Your task to perform on an android device: Go to settings Image 0: 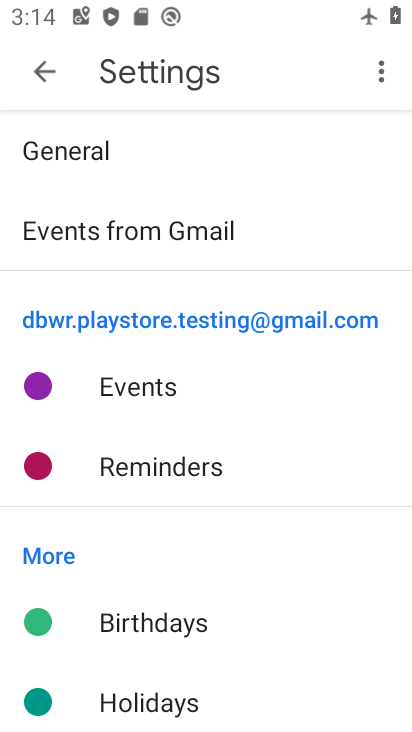
Step 0: press home button
Your task to perform on an android device: Go to settings Image 1: 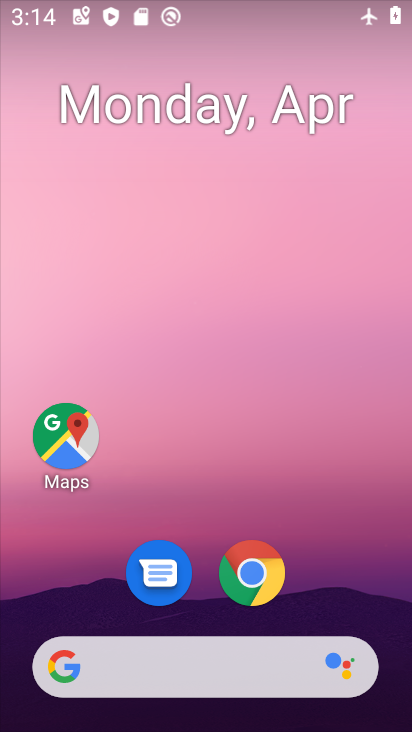
Step 1: drag from (372, 589) to (351, 105)
Your task to perform on an android device: Go to settings Image 2: 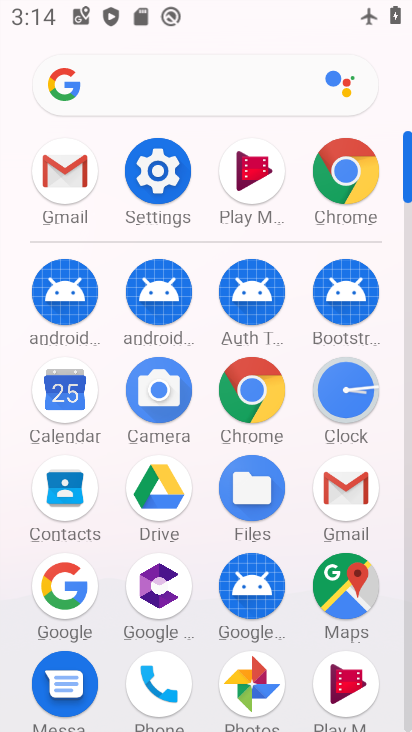
Step 2: click (167, 163)
Your task to perform on an android device: Go to settings Image 3: 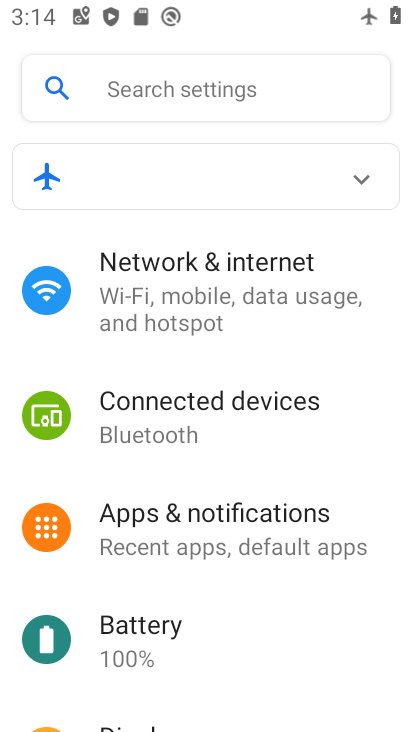
Step 3: task complete